Your task to perform on an android device: toggle location history Image 0: 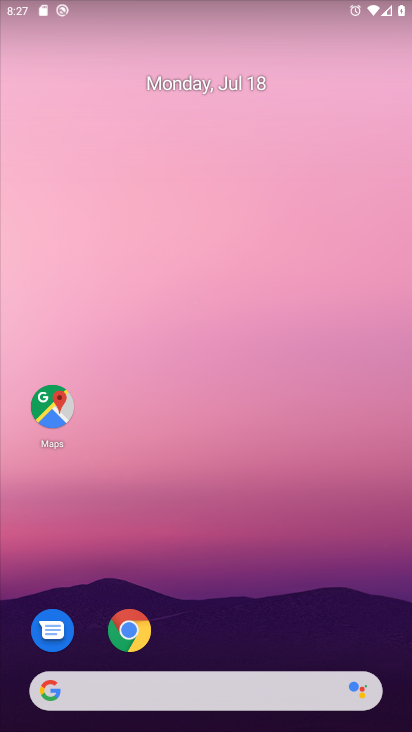
Step 0: drag from (200, 586) to (238, 256)
Your task to perform on an android device: toggle location history Image 1: 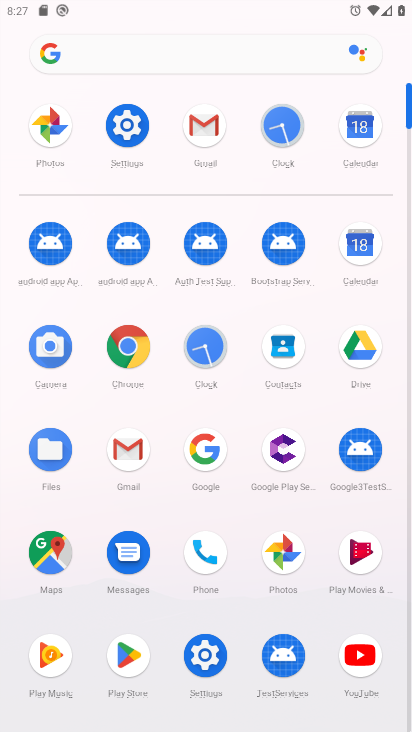
Step 1: click (150, 119)
Your task to perform on an android device: toggle location history Image 2: 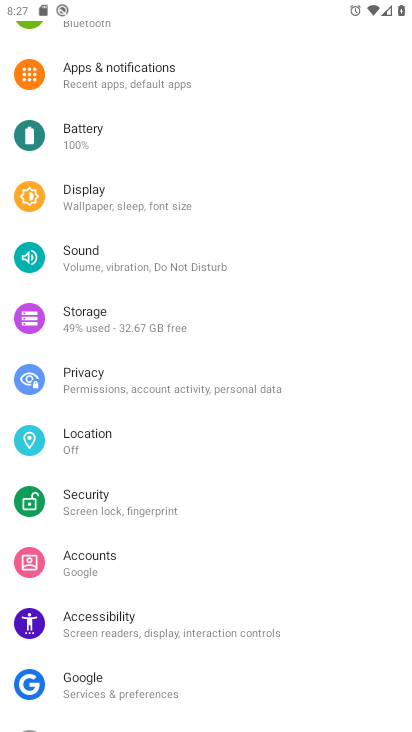
Step 2: click (133, 447)
Your task to perform on an android device: toggle location history Image 3: 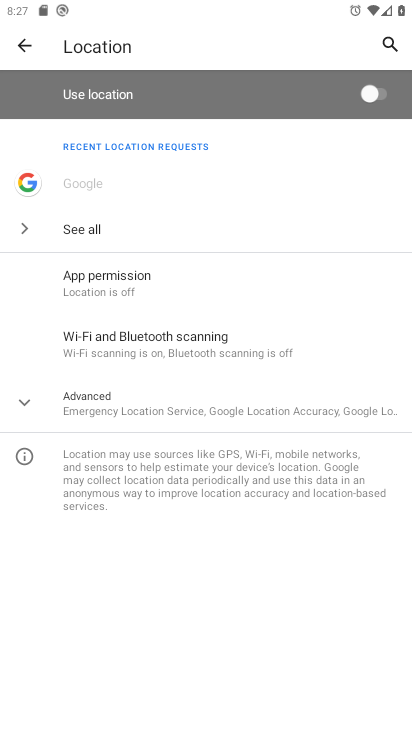
Step 3: click (173, 389)
Your task to perform on an android device: toggle location history Image 4: 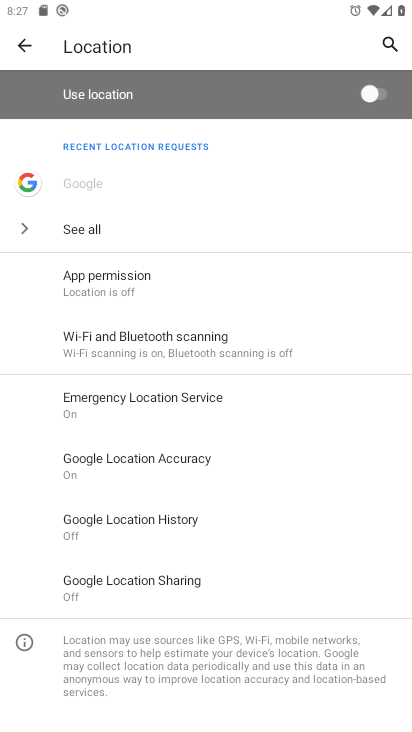
Step 4: click (230, 527)
Your task to perform on an android device: toggle location history Image 5: 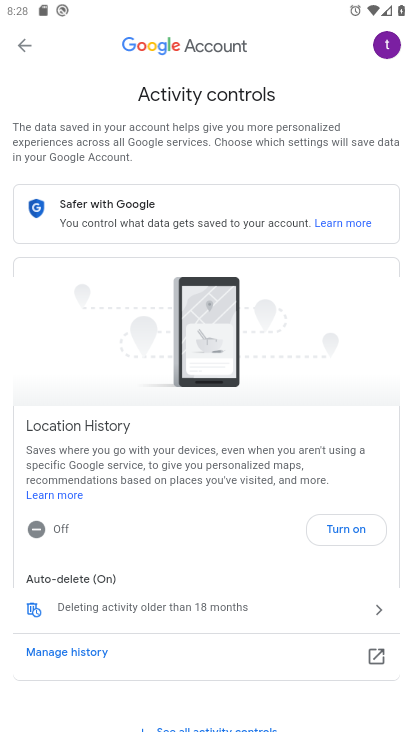
Step 5: click (354, 516)
Your task to perform on an android device: toggle location history Image 6: 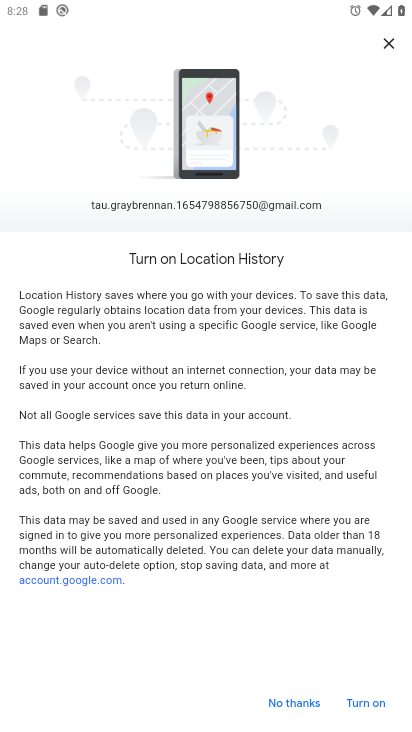
Step 6: click (362, 689)
Your task to perform on an android device: toggle location history Image 7: 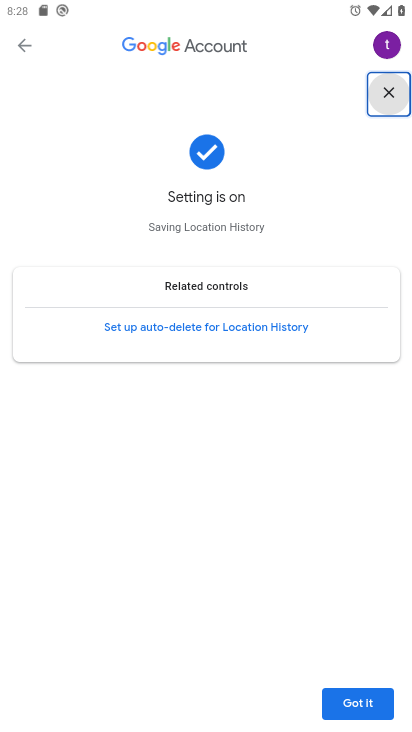
Step 7: click (353, 684)
Your task to perform on an android device: toggle location history Image 8: 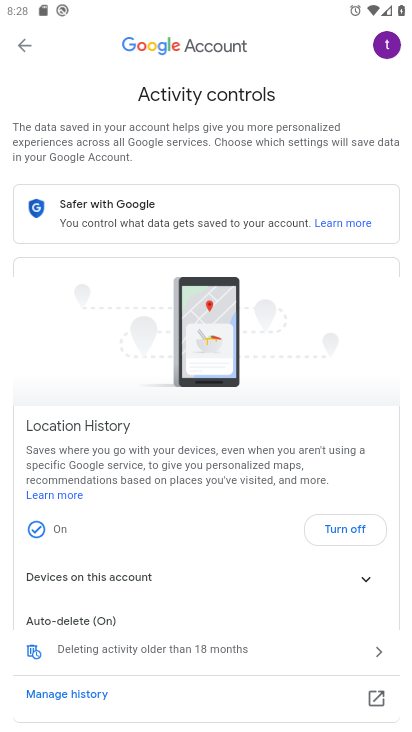
Step 8: task complete